Your task to perform on an android device: remove spam from my inbox in the gmail app Image 0: 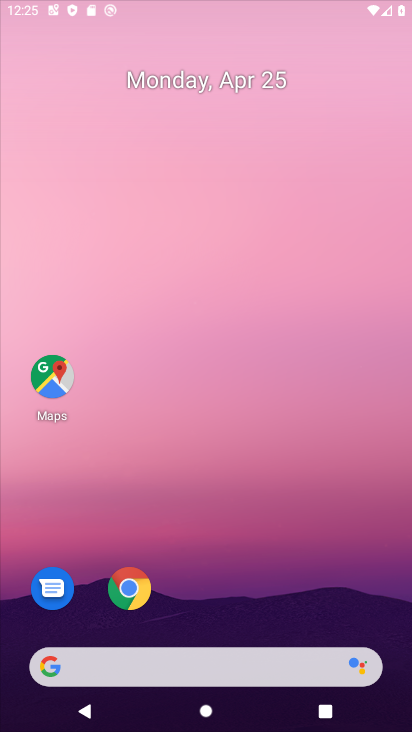
Step 0: click (55, 382)
Your task to perform on an android device: remove spam from my inbox in the gmail app Image 1: 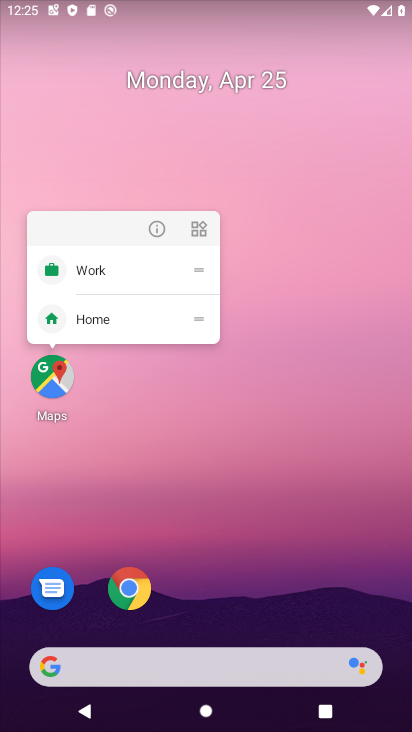
Step 1: drag from (202, 612) to (377, 3)
Your task to perform on an android device: remove spam from my inbox in the gmail app Image 2: 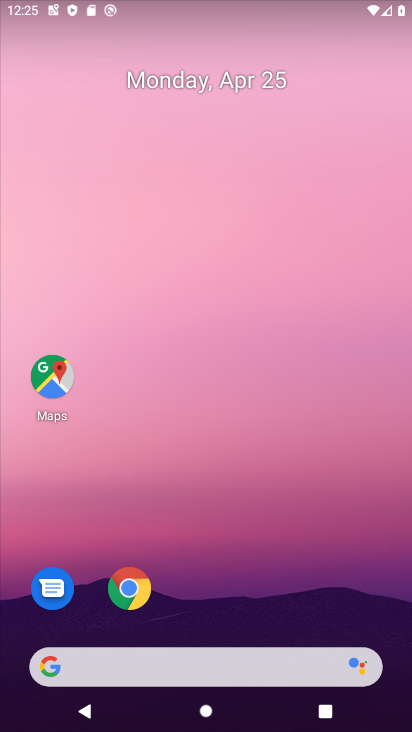
Step 2: drag from (185, 652) to (350, 17)
Your task to perform on an android device: remove spam from my inbox in the gmail app Image 3: 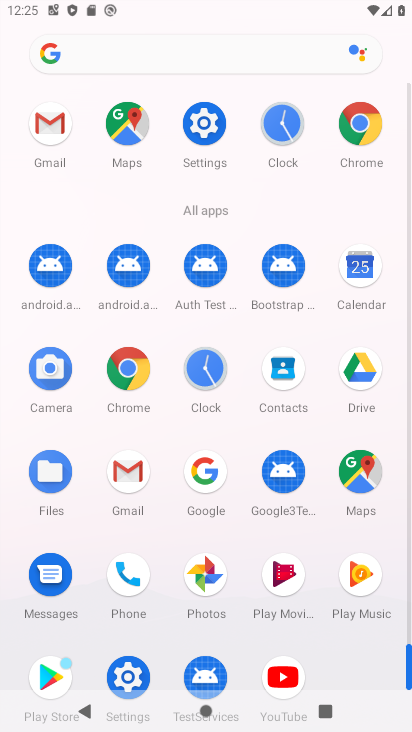
Step 3: click (116, 472)
Your task to perform on an android device: remove spam from my inbox in the gmail app Image 4: 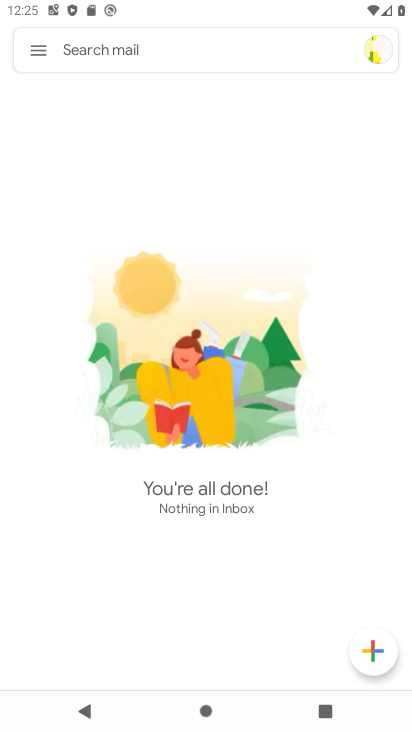
Step 4: click (46, 45)
Your task to perform on an android device: remove spam from my inbox in the gmail app Image 5: 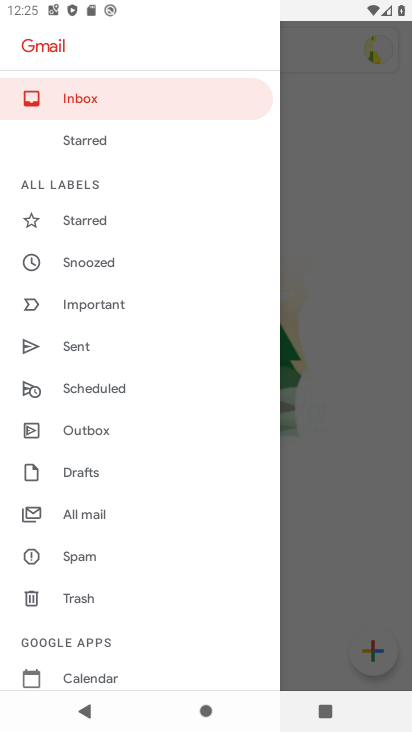
Step 5: drag from (91, 608) to (243, 104)
Your task to perform on an android device: remove spam from my inbox in the gmail app Image 6: 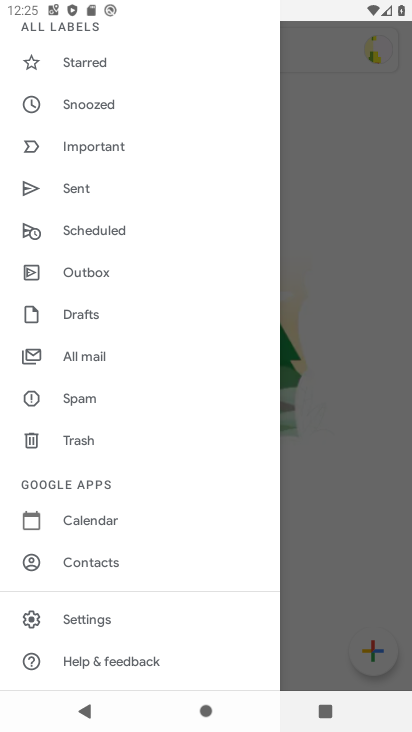
Step 6: click (107, 399)
Your task to perform on an android device: remove spam from my inbox in the gmail app Image 7: 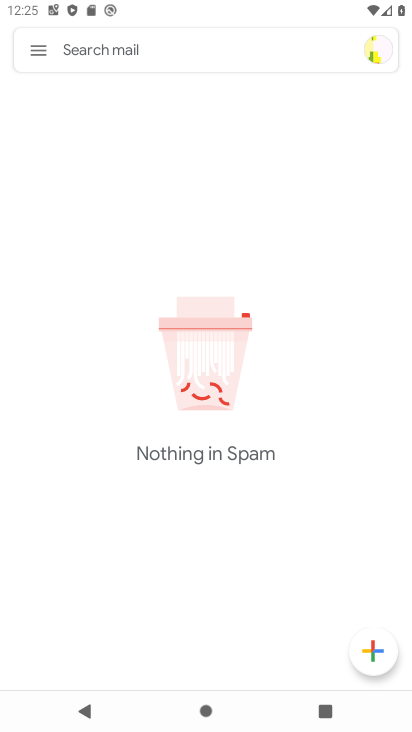
Step 7: task complete